Your task to perform on an android device: turn off location Image 0: 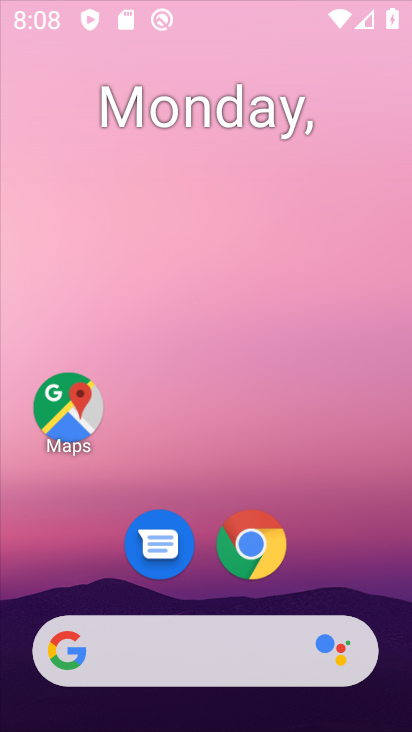
Step 0: click (185, 652)
Your task to perform on an android device: turn off location Image 1: 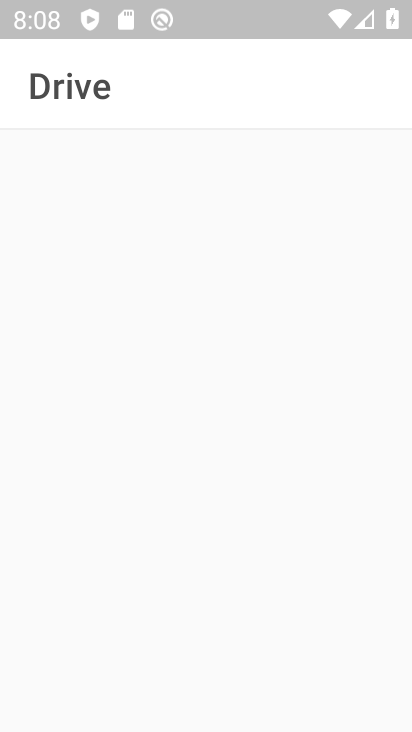
Step 1: press home button
Your task to perform on an android device: turn off location Image 2: 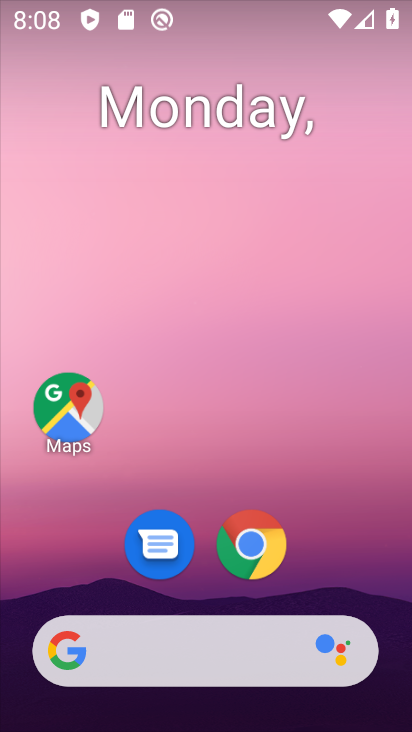
Step 2: drag from (209, 603) to (103, 6)
Your task to perform on an android device: turn off location Image 3: 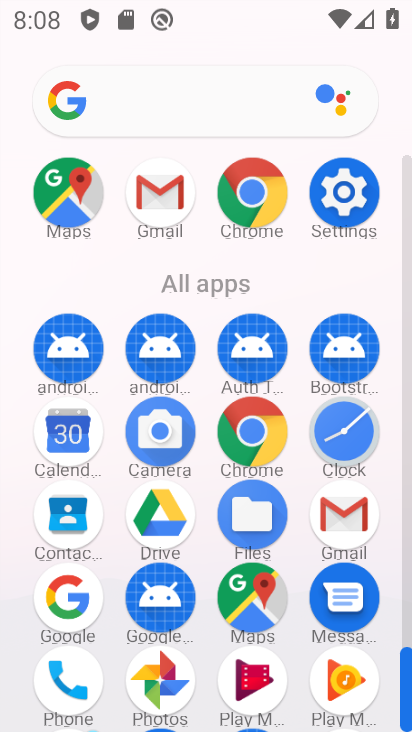
Step 3: click (350, 185)
Your task to perform on an android device: turn off location Image 4: 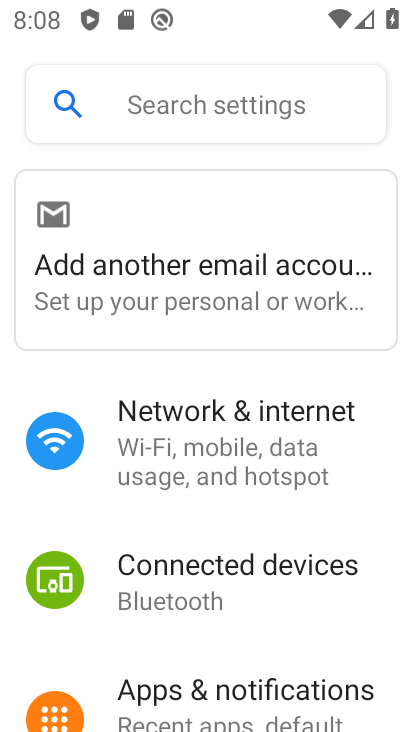
Step 4: drag from (171, 615) to (55, 66)
Your task to perform on an android device: turn off location Image 5: 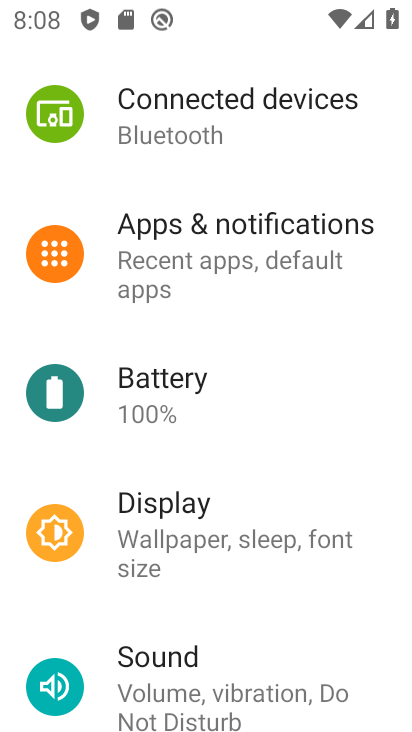
Step 5: drag from (159, 638) to (115, 64)
Your task to perform on an android device: turn off location Image 6: 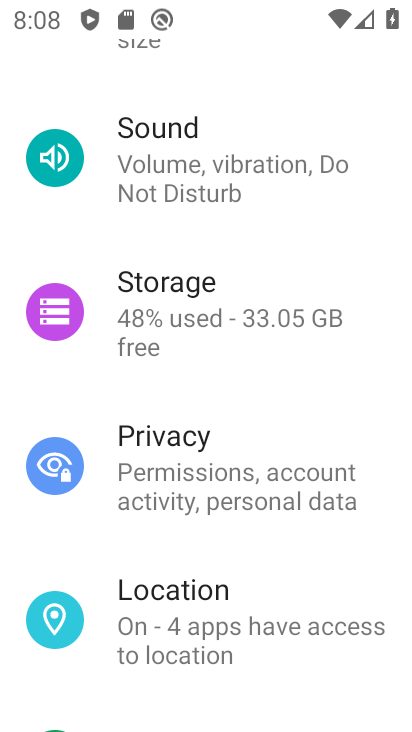
Step 6: click (183, 634)
Your task to perform on an android device: turn off location Image 7: 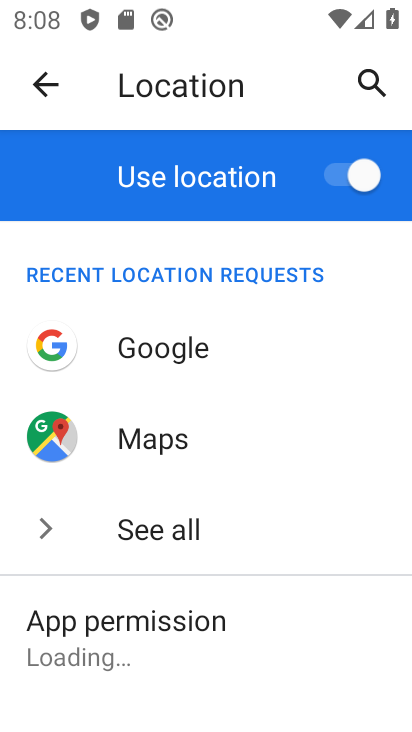
Step 7: click (355, 164)
Your task to perform on an android device: turn off location Image 8: 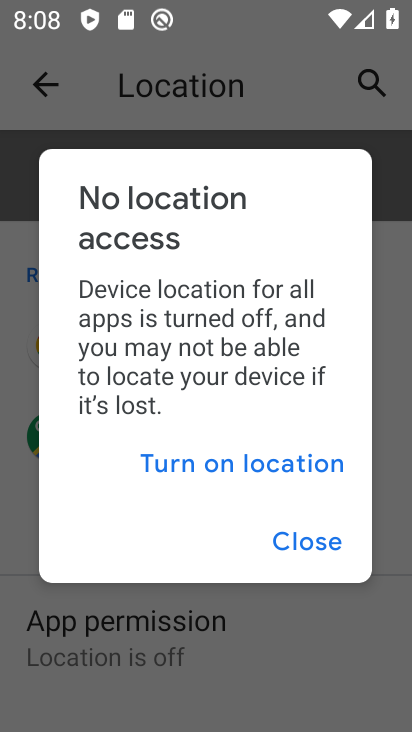
Step 8: click (304, 528)
Your task to perform on an android device: turn off location Image 9: 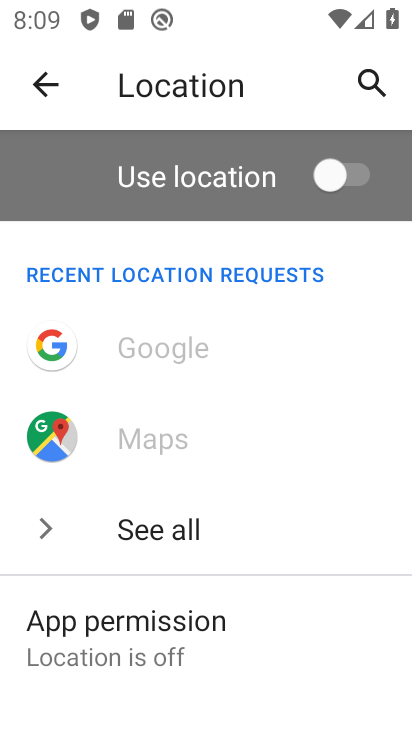
Step 9: task complete